Your task to perform on an android device: install app "Skype" Image 0: 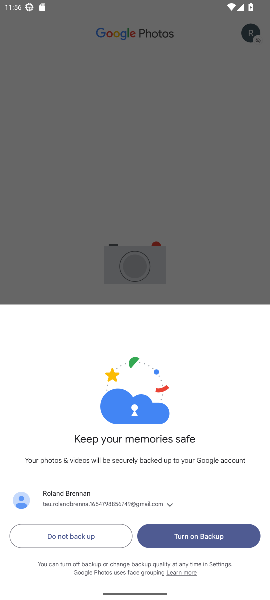
Step 0: press home button
Your task to perform on an android device: install app "Skype" Image 1: 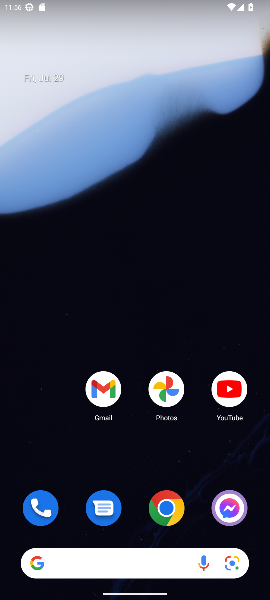
Step 1: drag from (182, 551) to (186, 73)
Your task to perform on an android device: install app "Skype" Image 2: 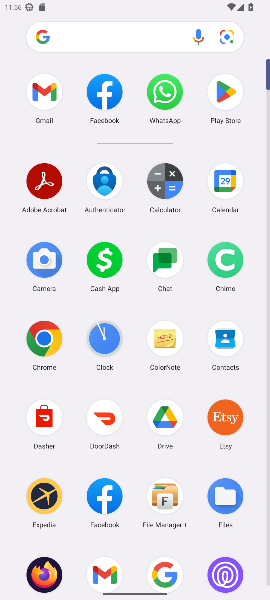
Step 2: click (223, 98)
Your task to perform on an android device: install app "Skype" Image 3: 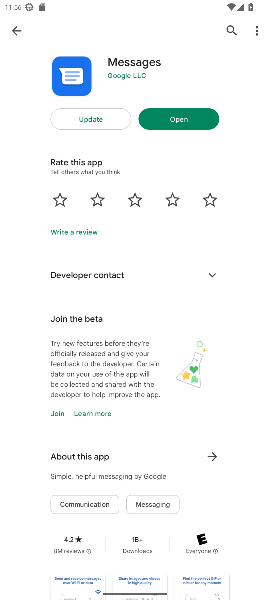
Step 3: click (230, 33)
Your task to perform on an android device: install app "Skype" Image 4: 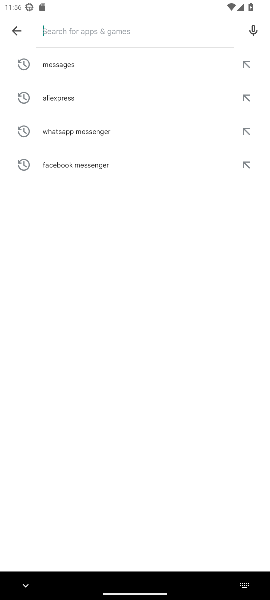
Step 4: type "skype"
Your task to perform on an android device: install app "Skype" Image 5: 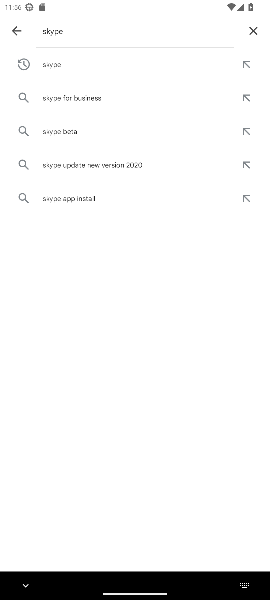
Step 5: click (92, 68)
Your task to perform on an android device: install app "Skype" Image 6: 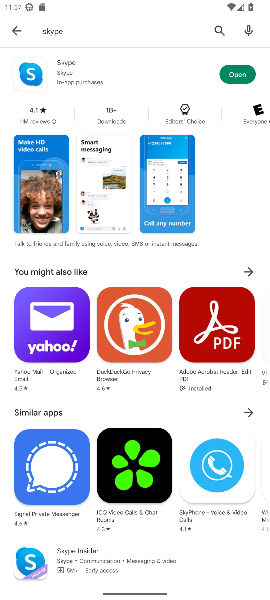
Step 6: task complete